Your task to perform on an android device: empty trash in google photos Image 0: 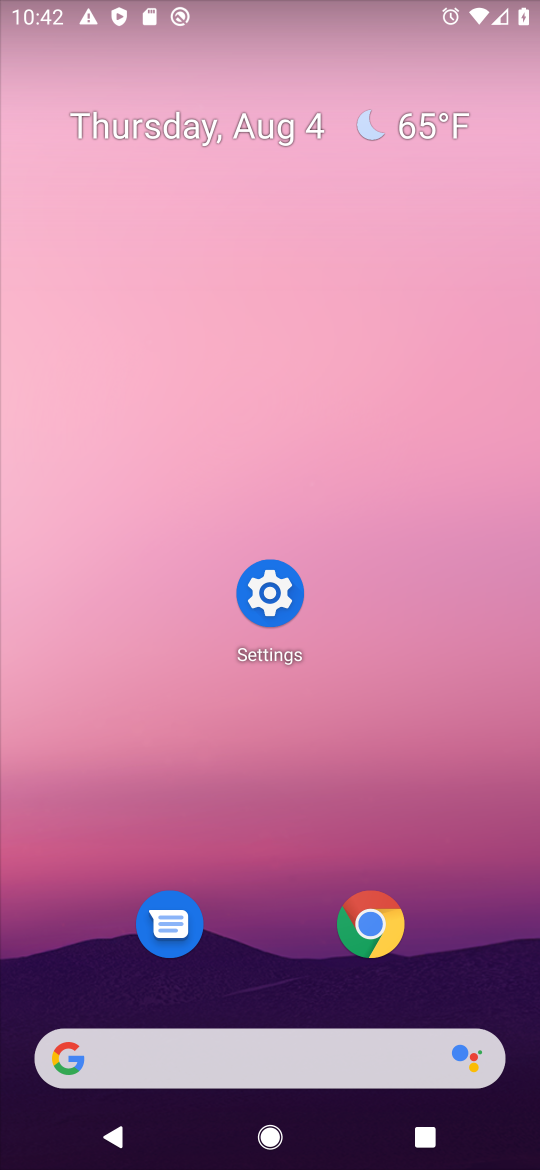
Step 0: press home button
Your task to perform on an android device: empty trash in google photos Image 1: 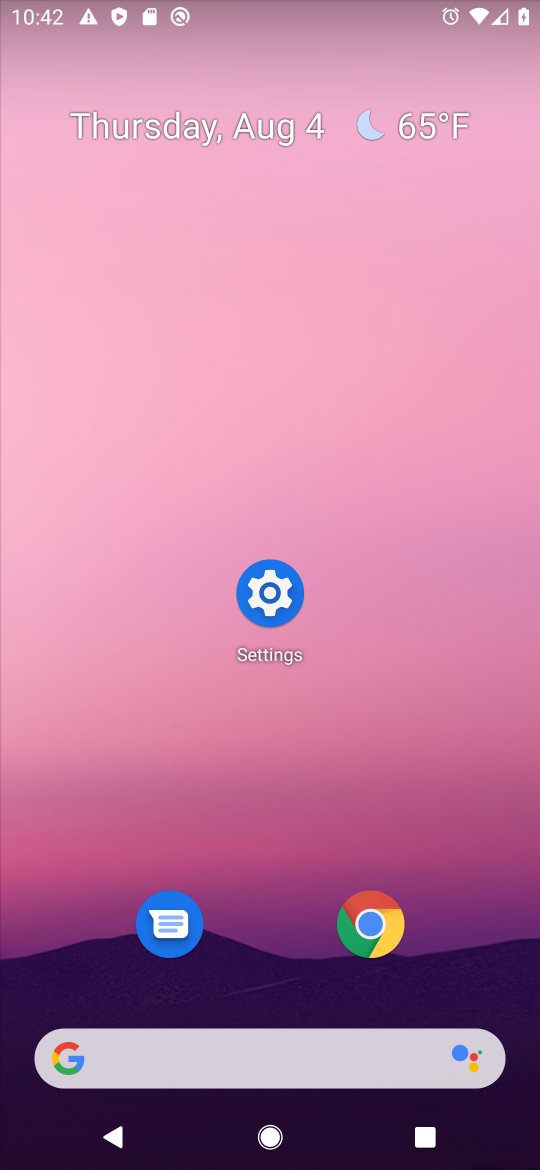
Step 1: drag from (260, 1041) to (456, 140)
Your task to perform on an android device: empty trash in google photos Image 2: 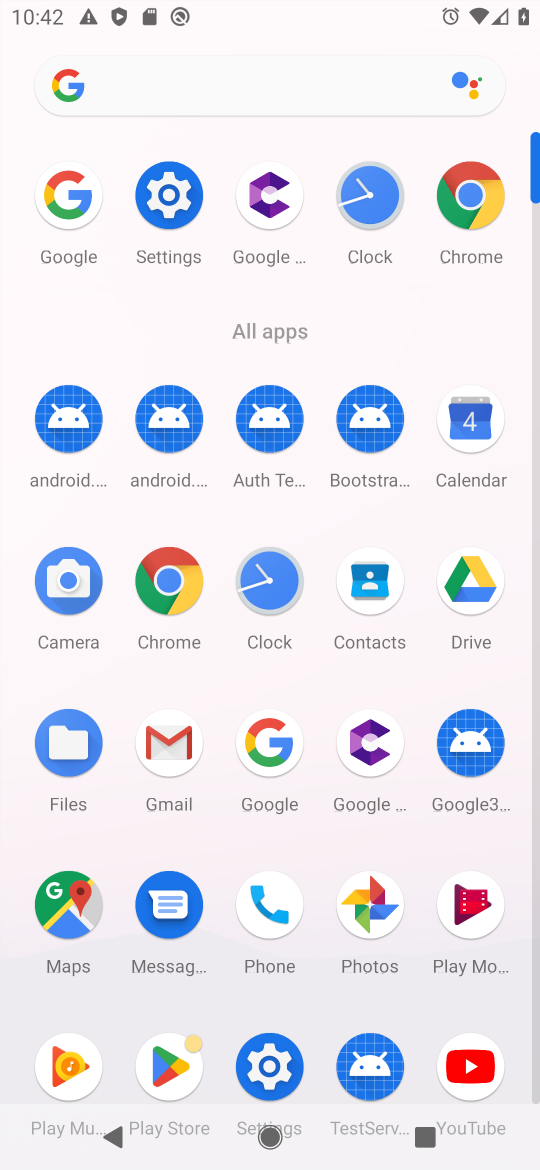
Step 2: click (364, 903)
Your task to perform on an android device: empty trash in google photos Image 3: 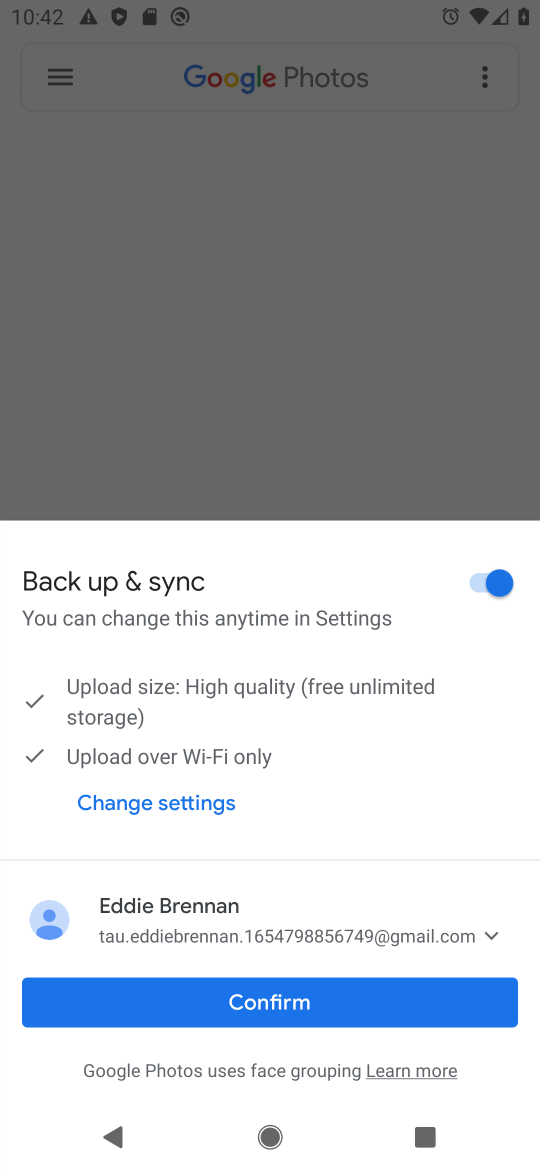
Step 3: click (263, 990)
Your task to perform on an android device: empty trash in google photos Image 4: 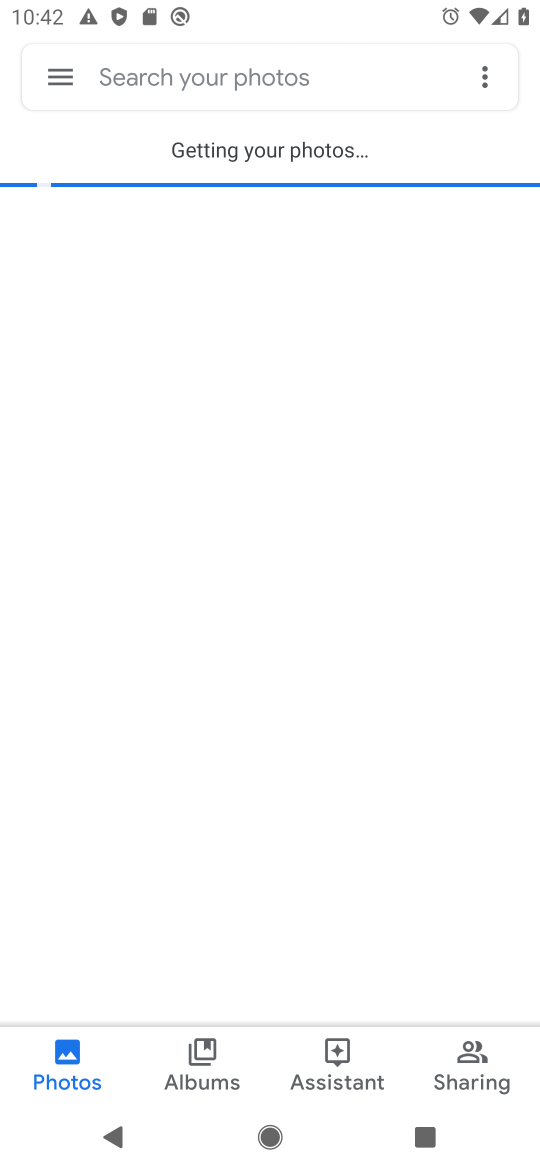
Step 4: click (61, 64)
Your task to perform on an android device: empty trash in google photos Image 5: 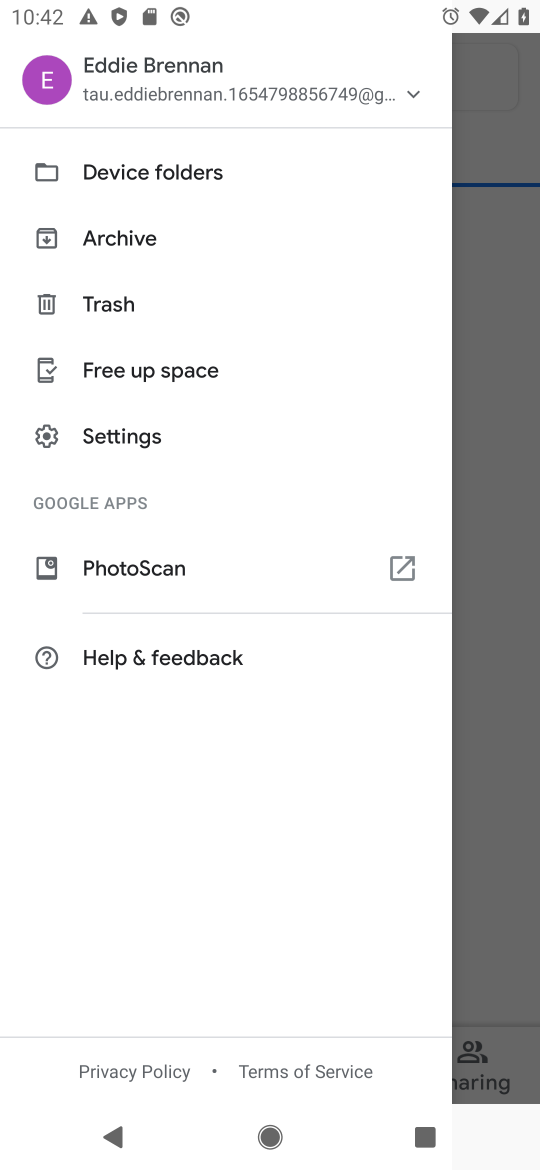
Step 5: click (96, 300)
Your task to perform on an android device: empty trash in google photos Image 6: 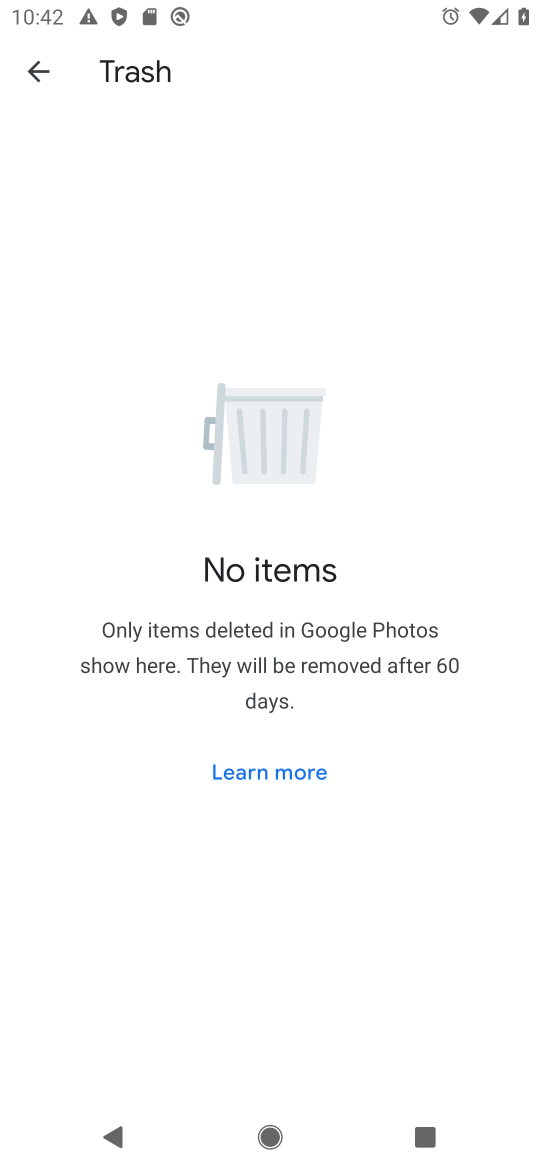
Step 6: task complete